Your task to perform on an android device: Clear the shopping cart on bestbuy.com. Add "razer deathadder" to the cart on bestbuy.com Image 0: 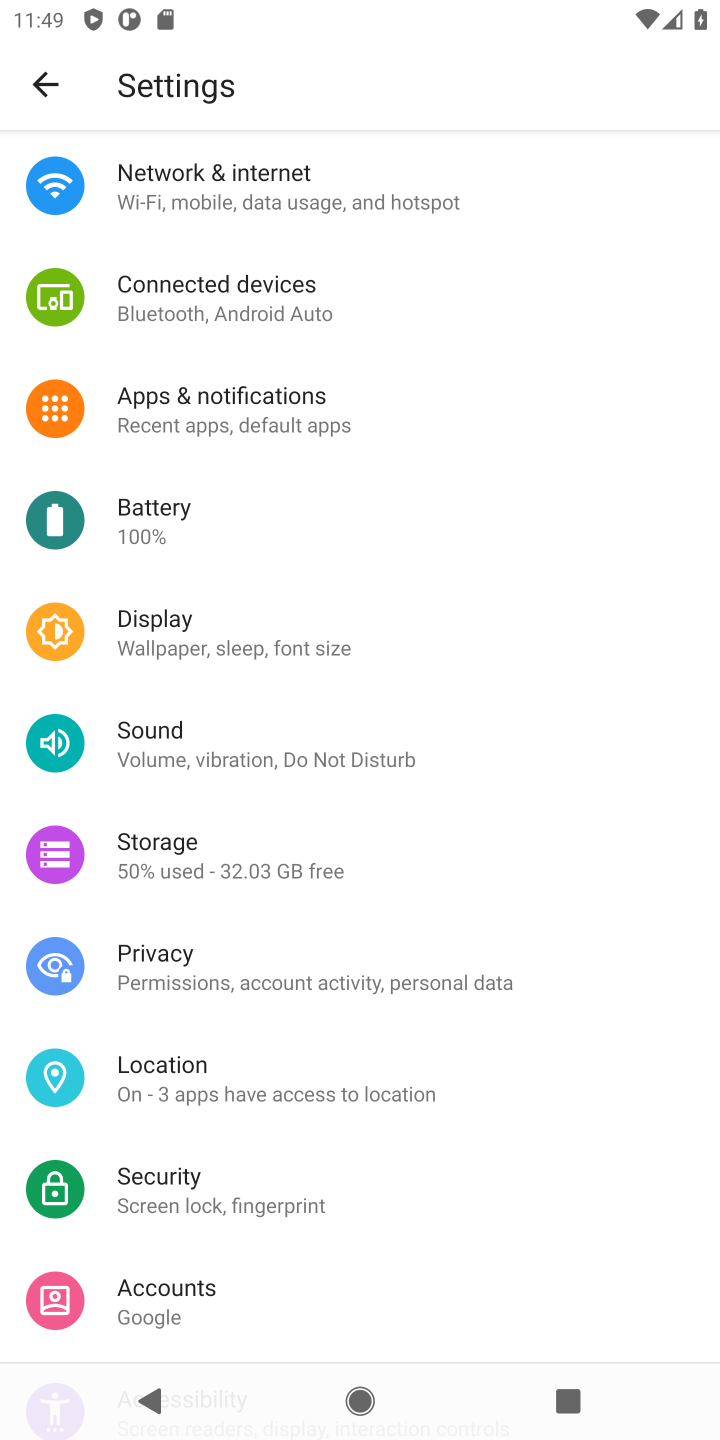
Step 0: press home button
Your task to perform on an android device: Clear the shopping cart on bestbuy.com. Add "razer deathadder" to the cart on bestbuy.com Image 1: 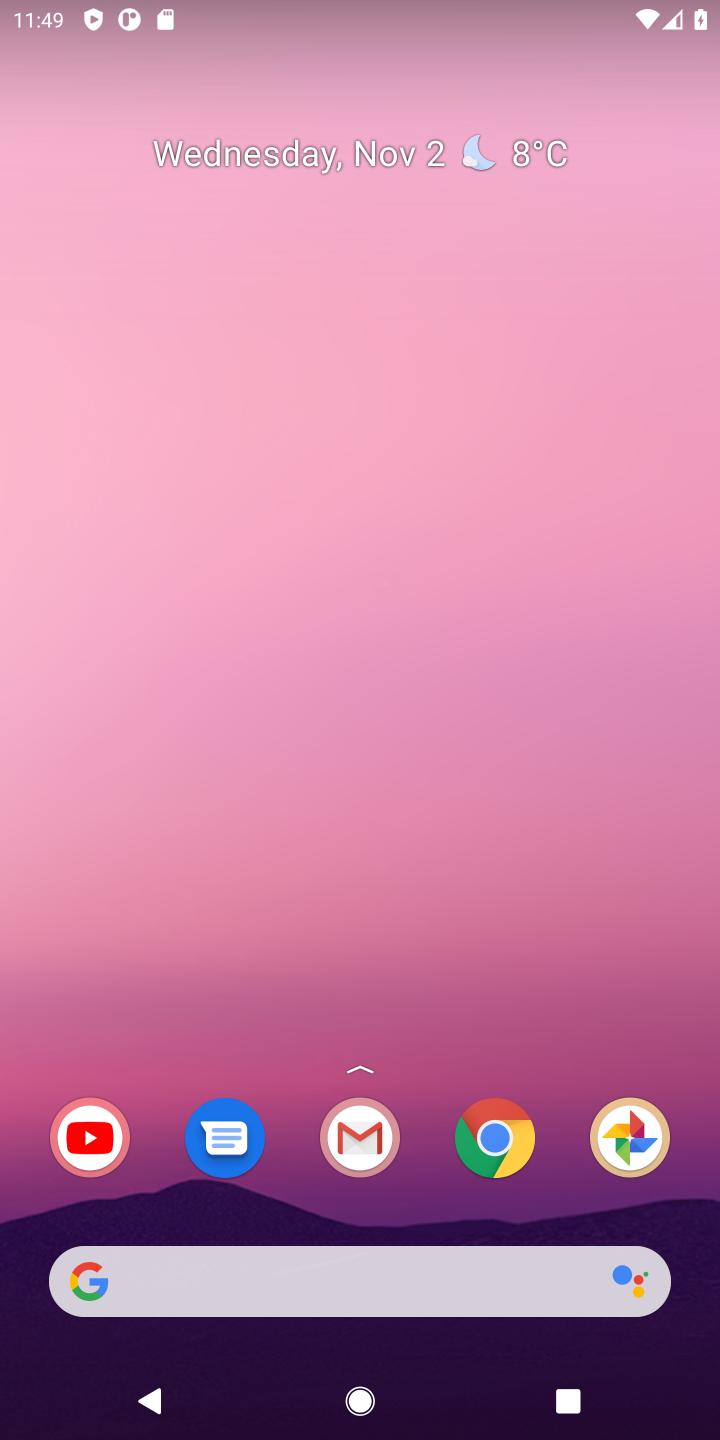
Step 1: click (503, 1133)
Your task to perform on an android device: Clear the shopping cart on bestbuy.com. Add "razer deathadder" to the cart on bestbuy.com Image 2: 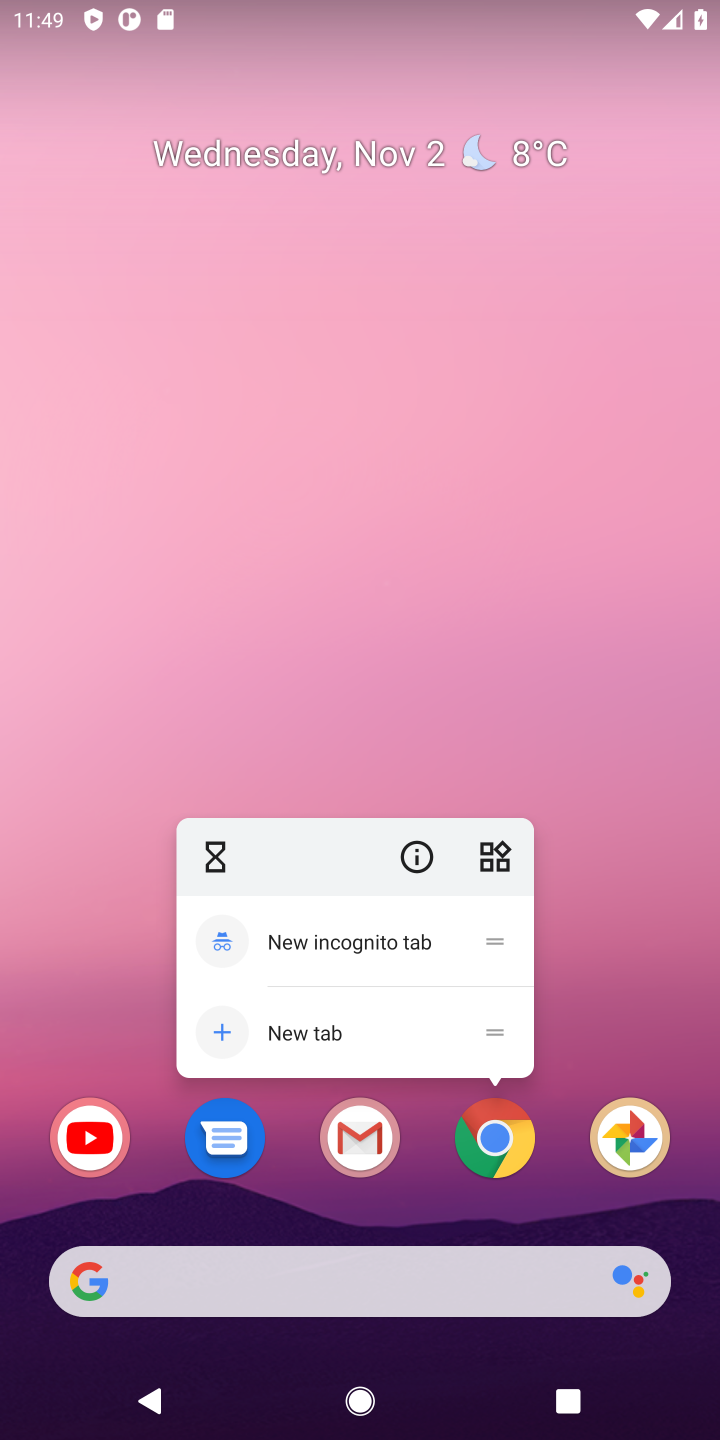
Step 2: click (487, 1144)
Your task to perform on an android device: Clear the shopping cart on bestbuy.com. Add "razer deathadder" to the cart on bestbuy.com Image 3: 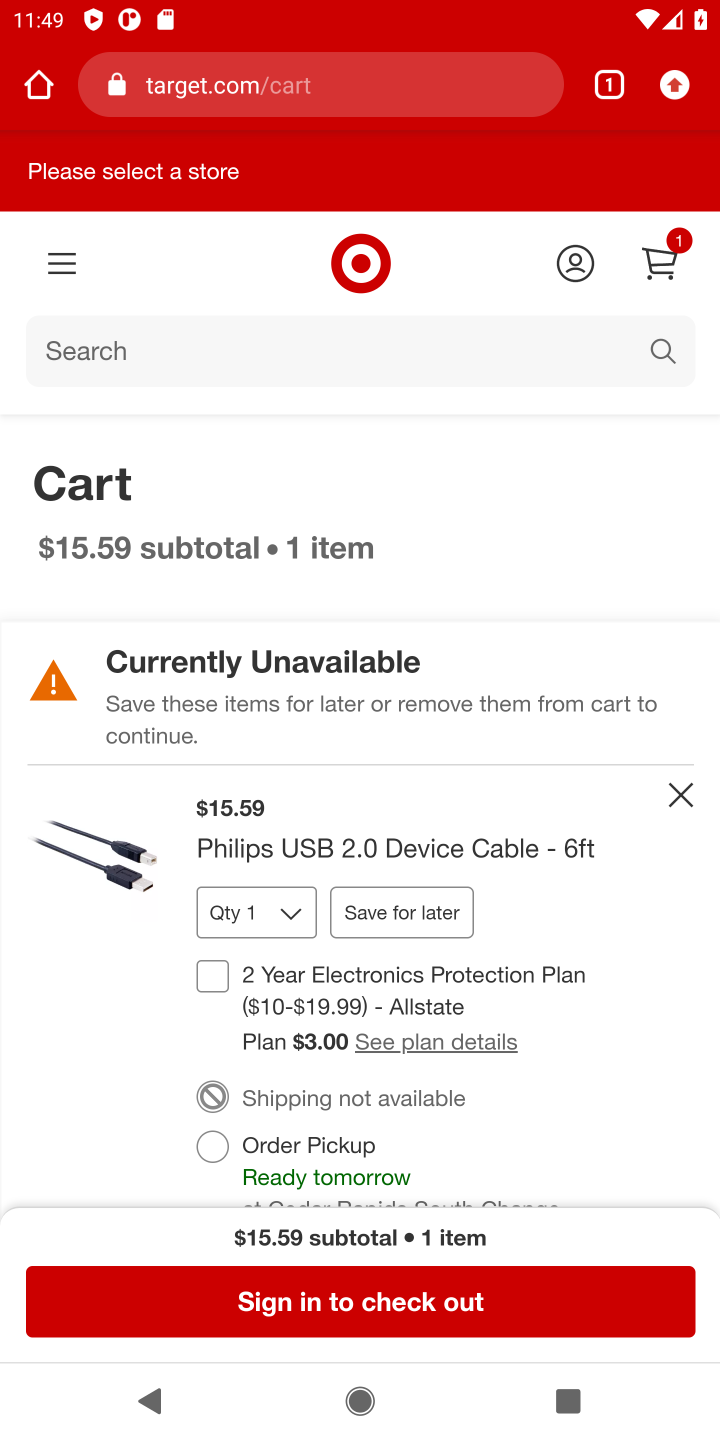
Step 3: click (279, 79)
Your task to perform on an android device: Clear the shopping cart on bestbuy.com. Add "razer deathadder" to the cart on bestbuy.com Image 4: 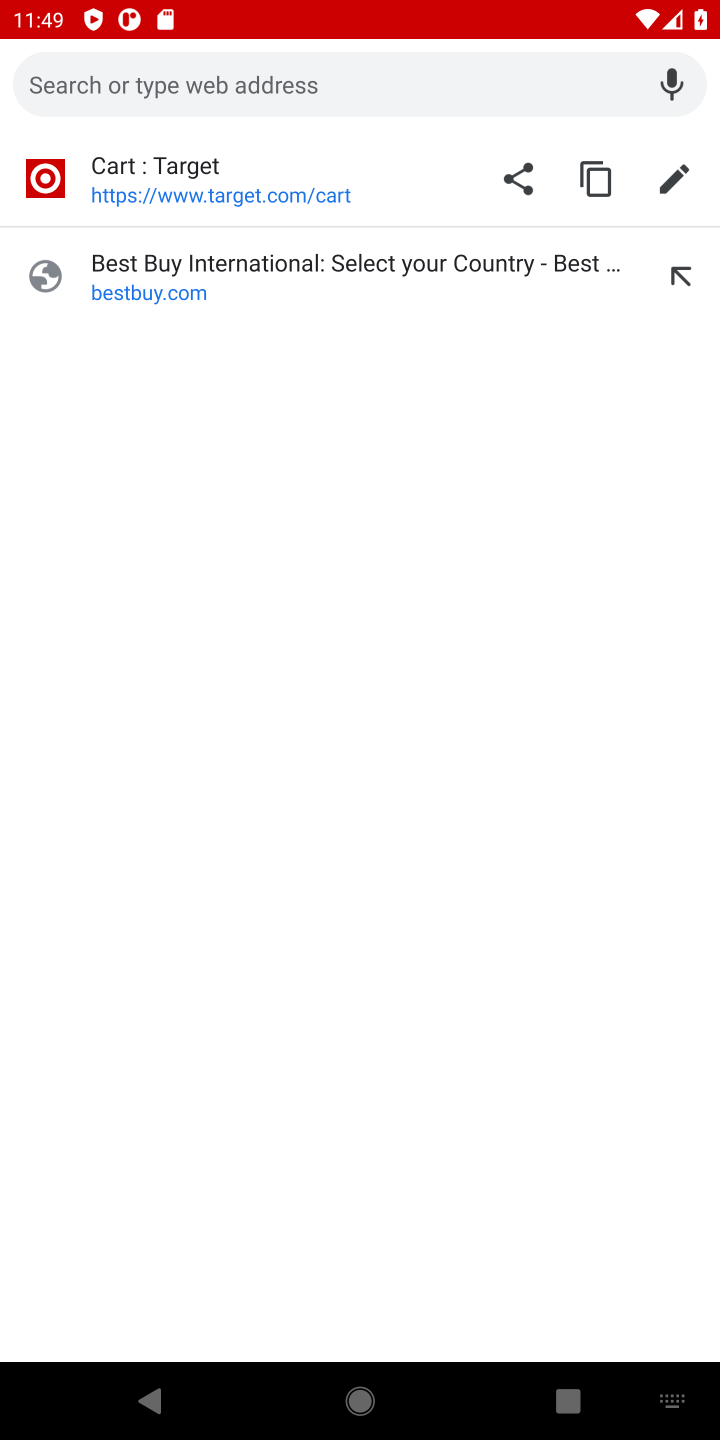
Step 4: click (162, 275)
Your task to perform on an android device: Clear the shopping cart on bestbuy.com. Add "razer deathadder" to the cart on bestbuy.com Image 5: 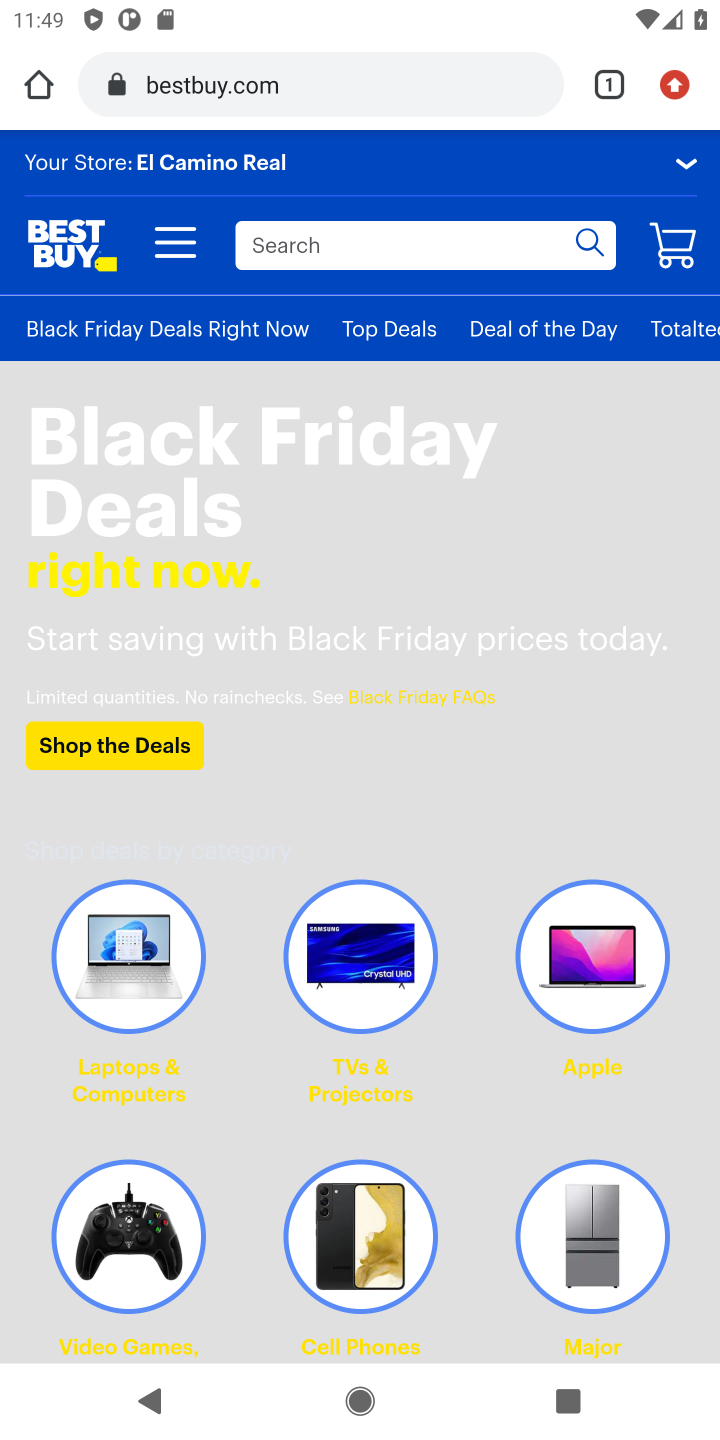
Step 5: click (669, 261)
Your task to perform on an android device: Clear the shopping cart on bestbuy.com. Add "razer deathadder" to the cart on bestbuy.com Image 6: 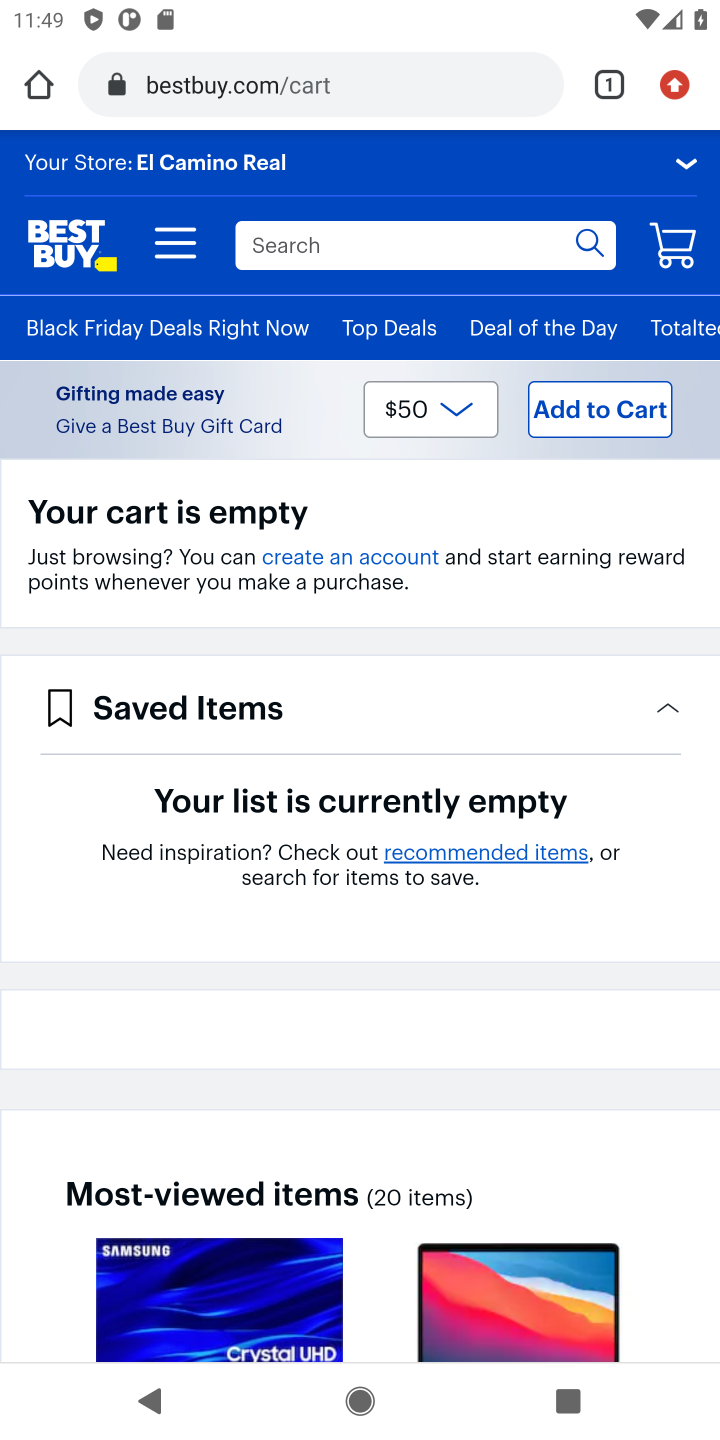
Step 6: click (322, 267)
Your task to perform on an android device: Clear the shopping cart on bestbuy.com. Add "razer deathadder" to the cart on bestbuy.com Image 7: 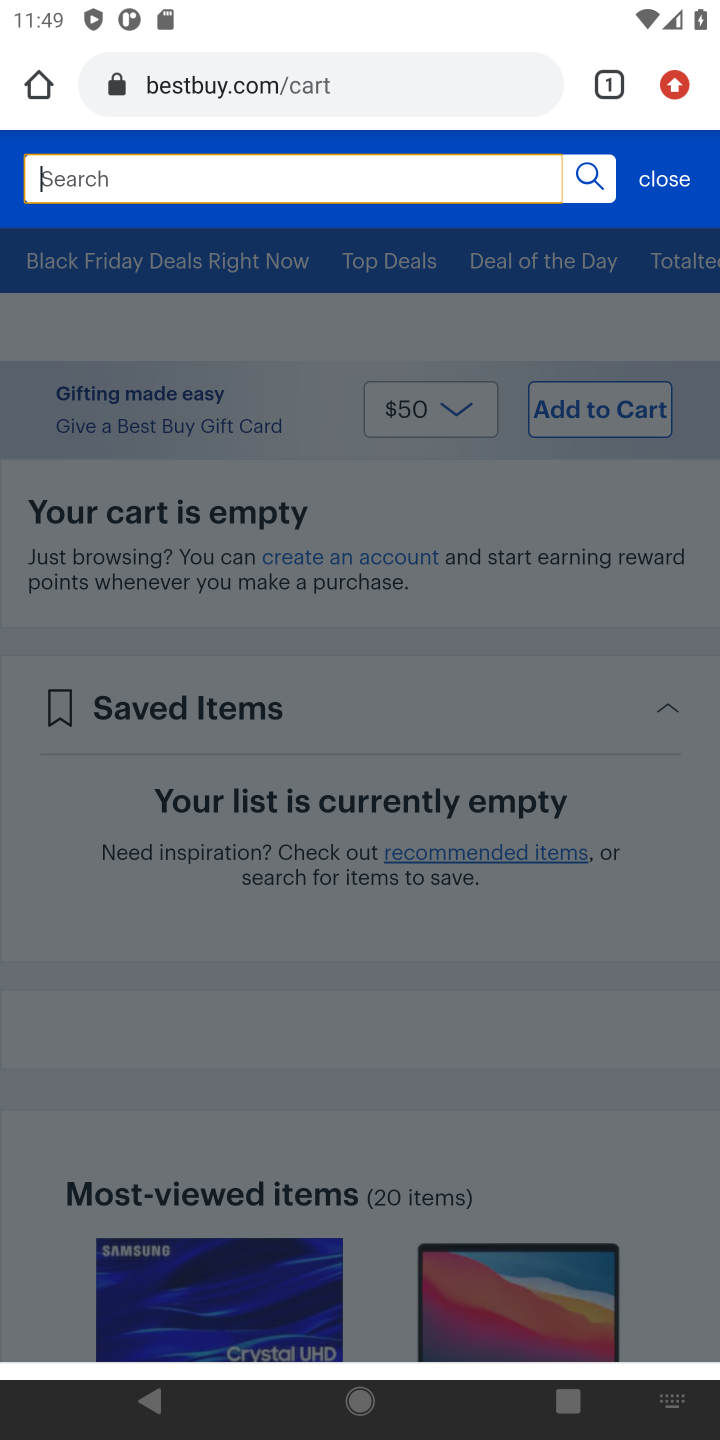
Step 7: click (302, 258)
Your task to perform on an android device: Clear the shopping cart on bestbuy.com. Add "razer deathadder" to the cart on bestbuy.com Image 8: 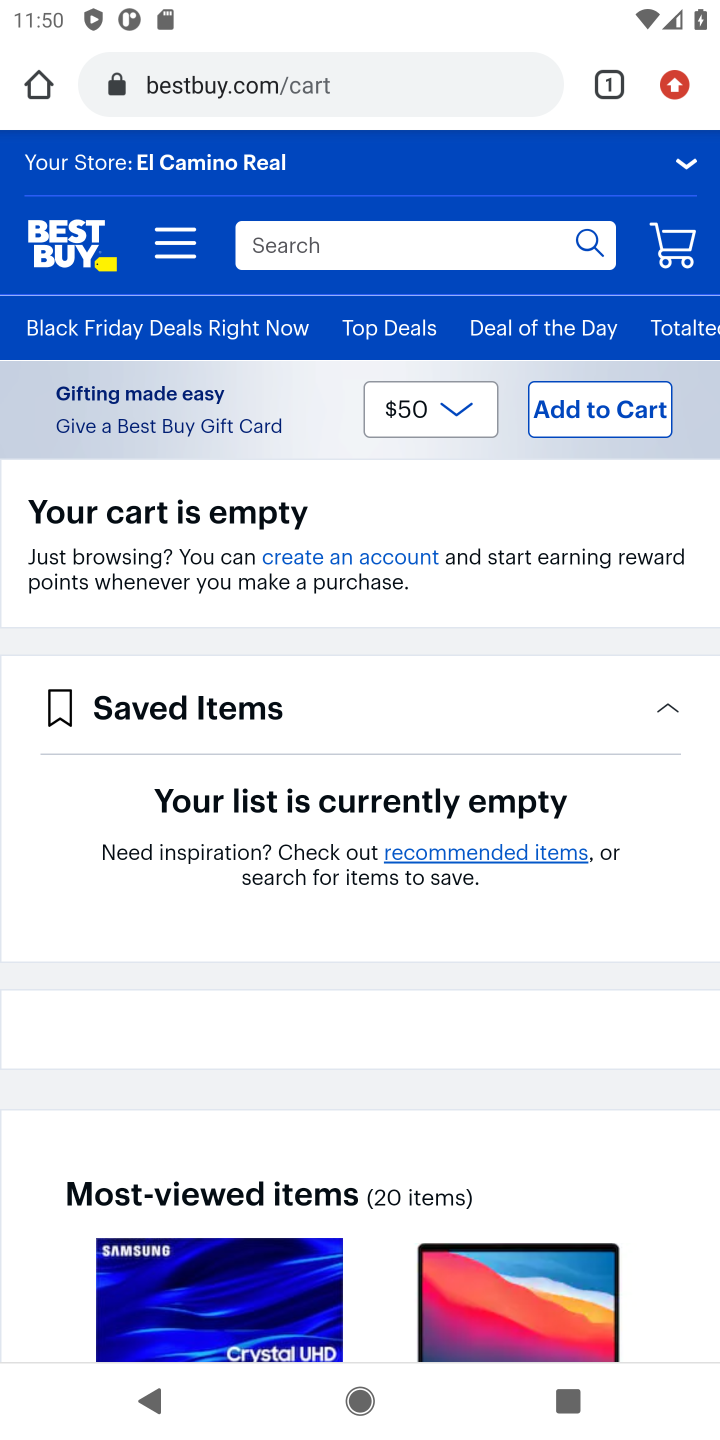
Step 8: click (400, 247)
Your task to perform on an android device: Clear the shopping cart on bestbuy.com. Add "razer deathadder" to the cart on bestbuy.com Image 9: 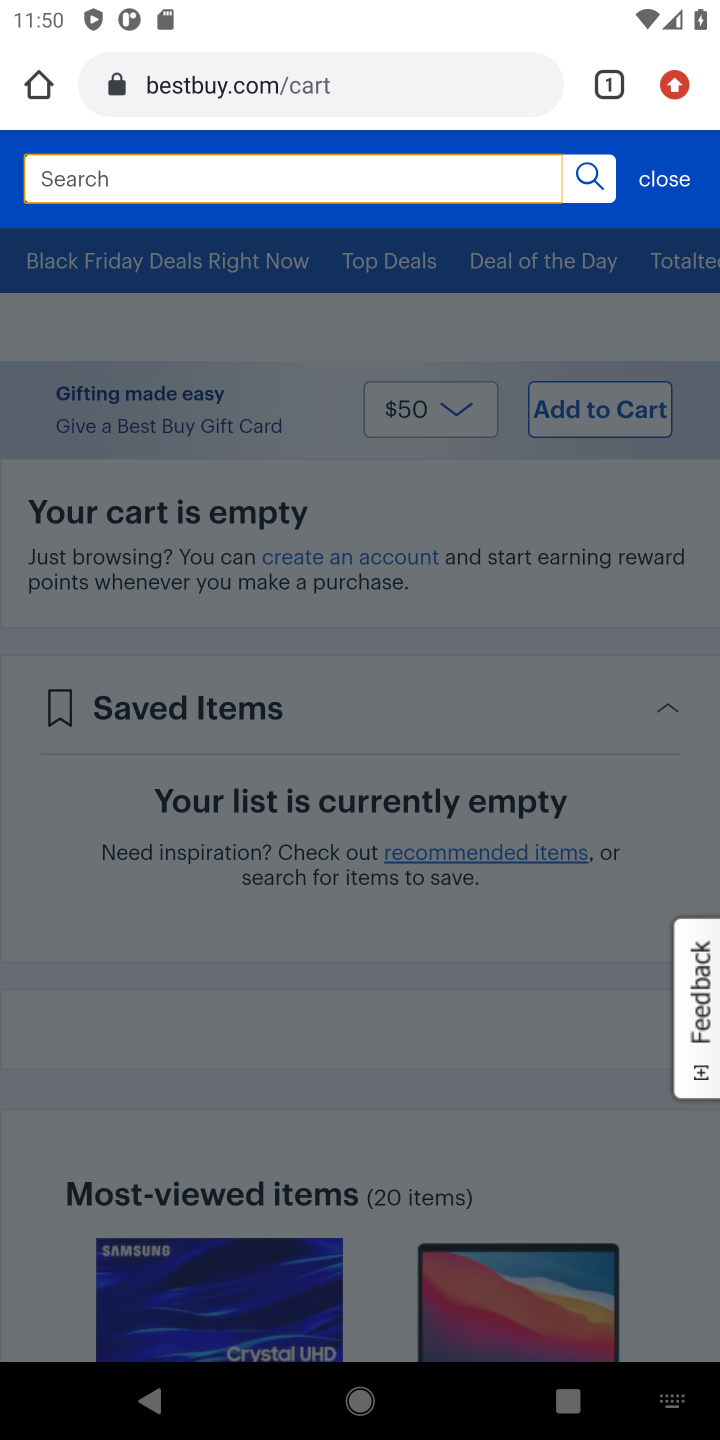
Step 9: type "razer deathadder"
Your task to perform on an android device: Clear the shopping cart on bestbuy.com. Add "razer deathadder" to the cart on bestbuy.com Image 10: 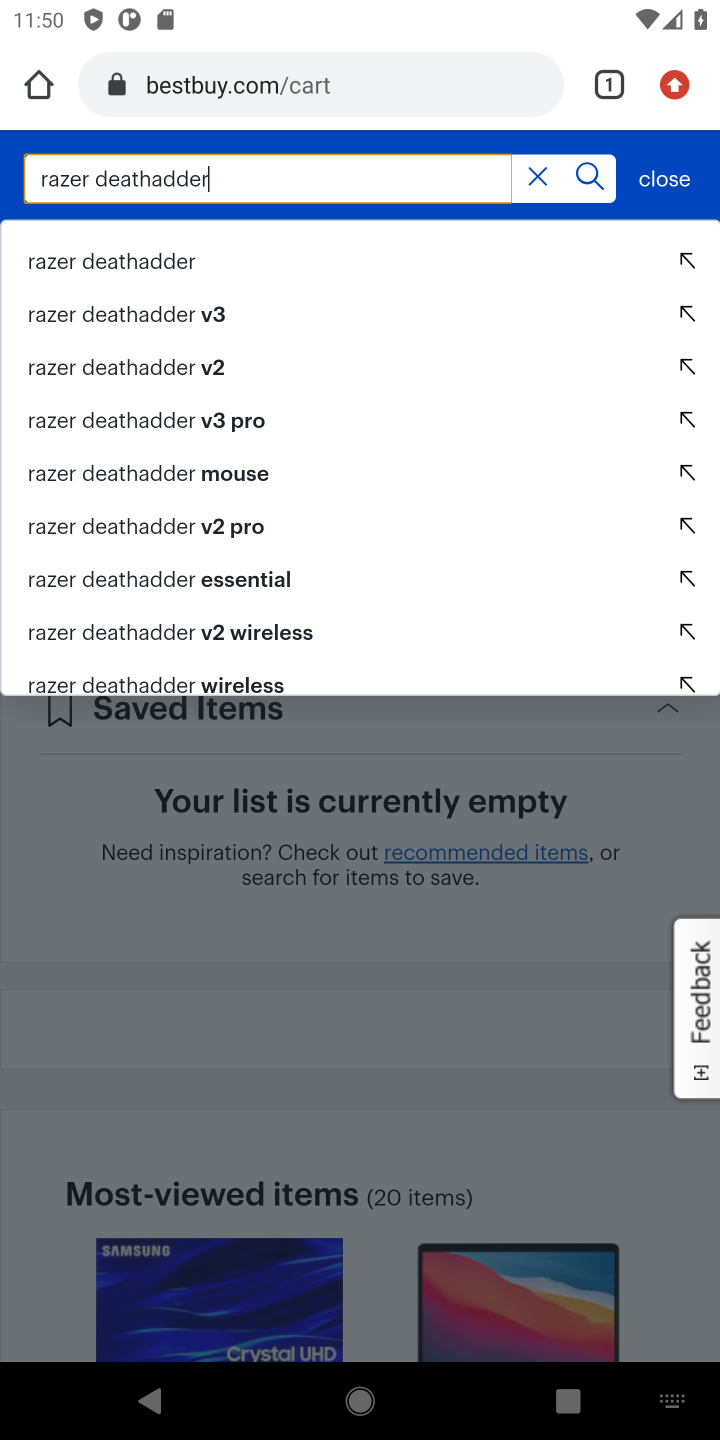
Step 10: click (597, 168)
Your task to perform on an android device: Clear the shopping cart on bestbuy.com. Add "razer deathadder" to the cart on bestbuy.com Image 11: 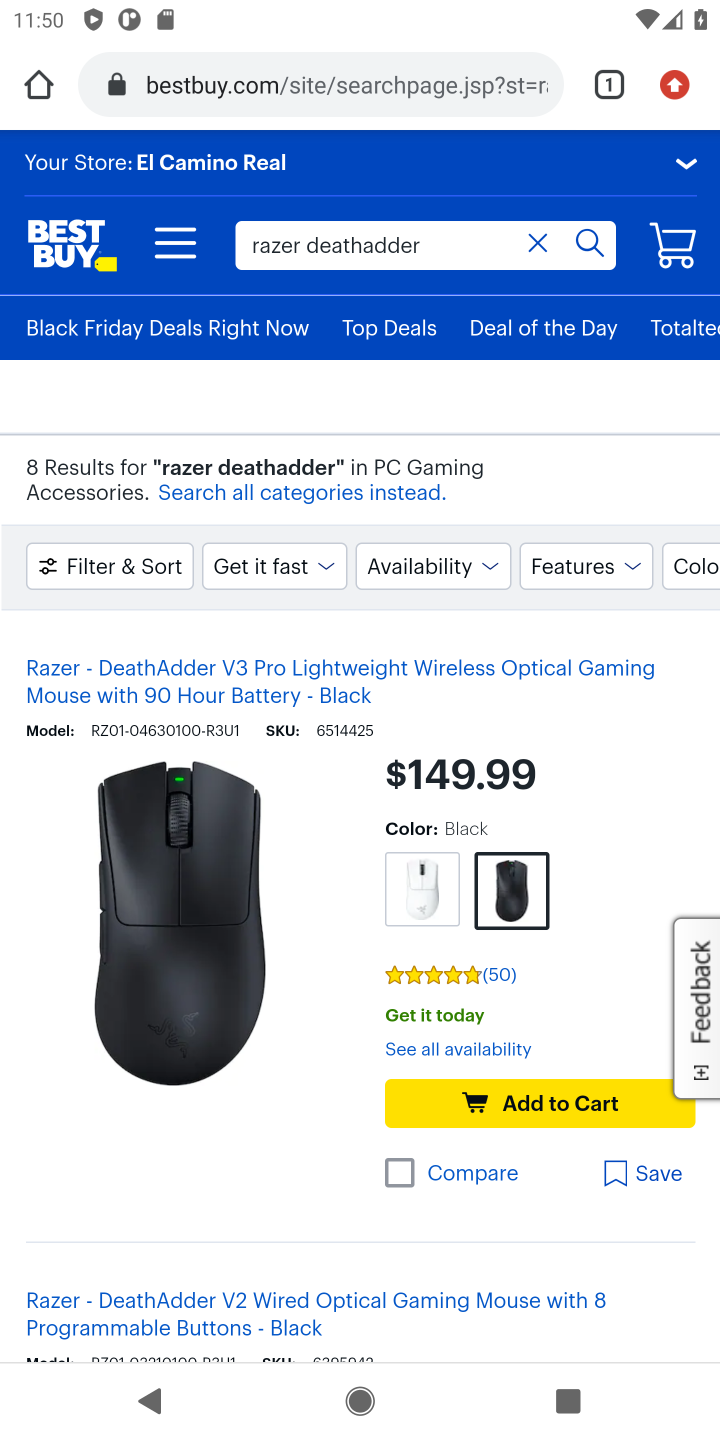
Step 11: click (496, 1091)
Your task to perform on an android device: Clear the shopping cart on bestbuy.com. Add "razer deathadder" to the cart on bestbuy.com Image 12: 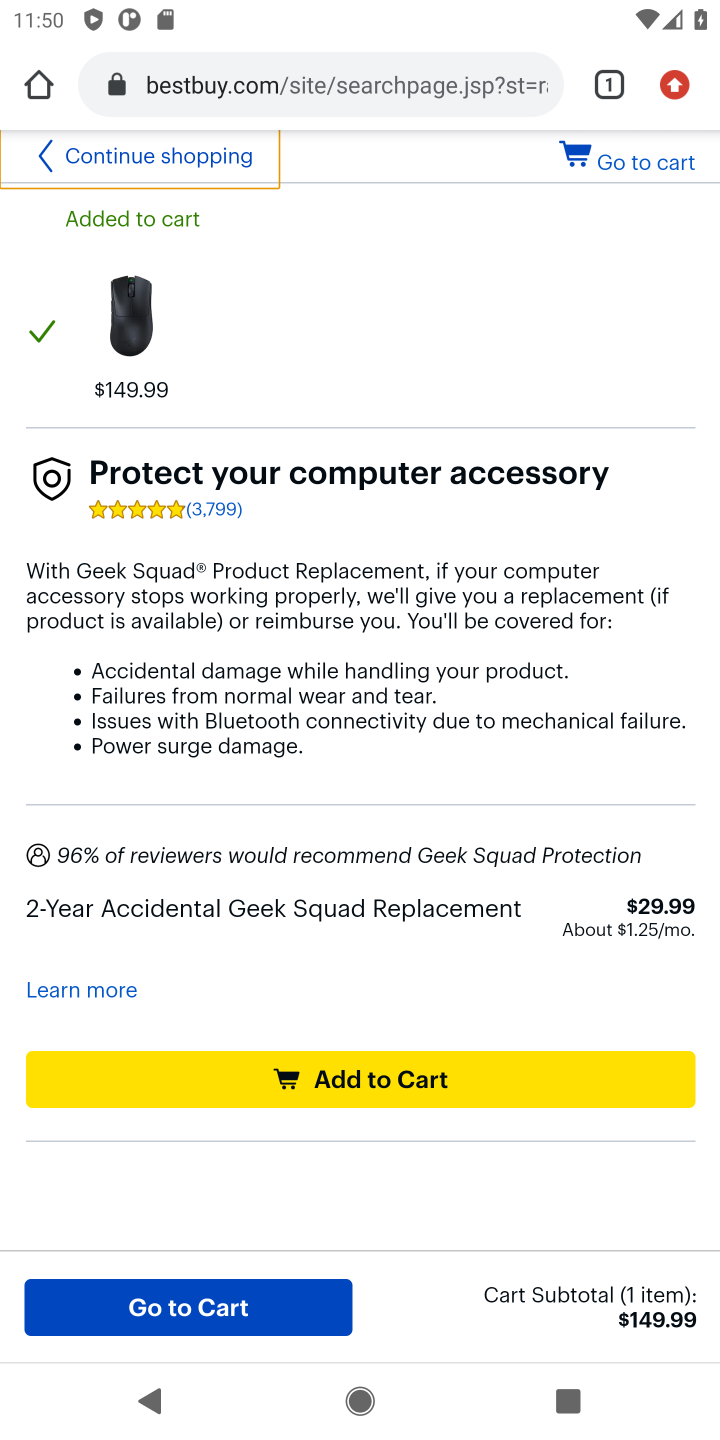
Step 12: task complete